Your task to perform on an android device: turn on showing notifications on the lock screen Image 0: 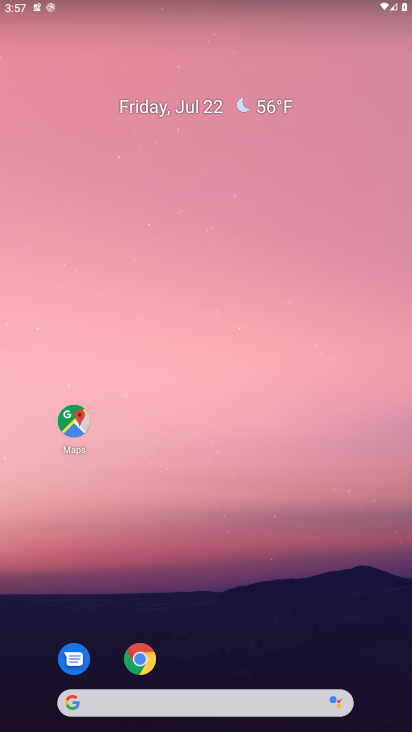
Step 0: drag from (222, 694) to (315, 154)
Your task to perform on an android device: turn on showing notifications on the lock screen Image 1: 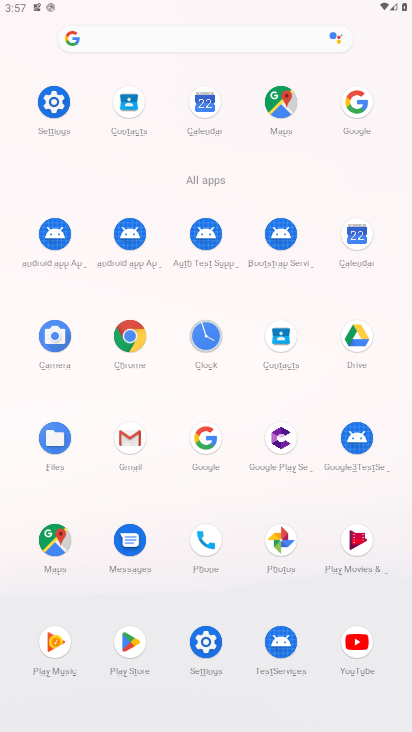
Step 1: click (59, 94)
Your task to perform on an android device: turn on showing notifications on the lock screen Image 2: 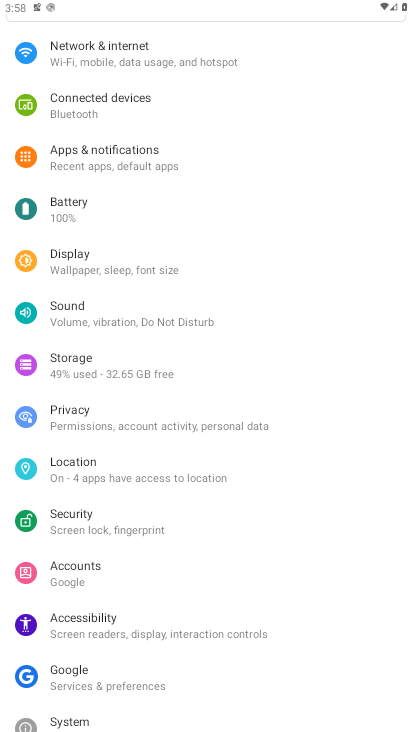
Step 2: click (83, 158)
Your task to perform on an android device: turn on showing notifications on the lock screen Image 3: 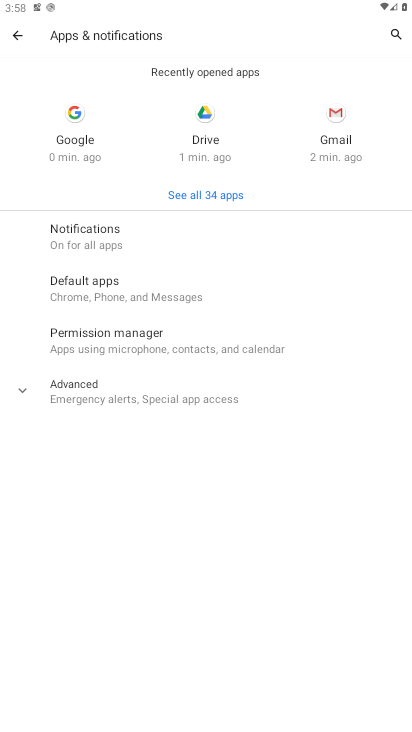
Step 3: click (91, 394)
Your task to perform on an android device: turn on showing notifications on the lock screen Image 4: 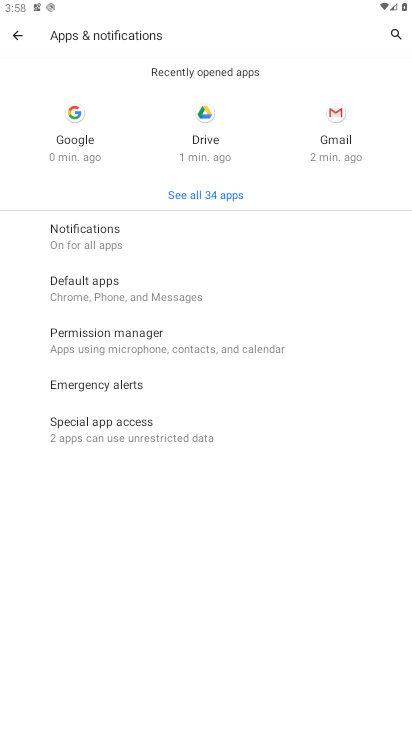
Step 4: click (98, 227)
Your task to perform on an android device: turn on showing notifications on the lock screen Image 5: 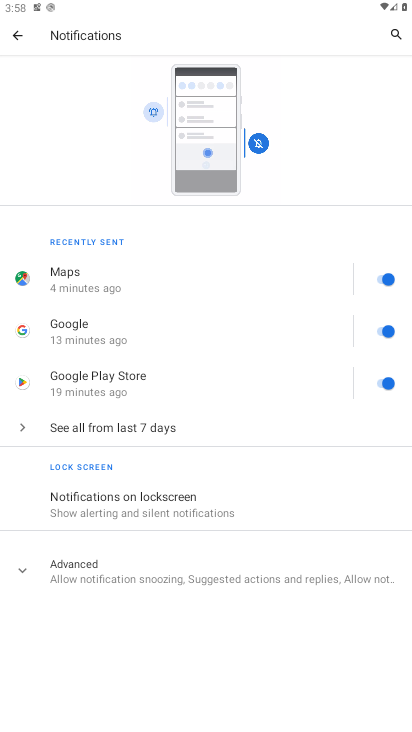
Step 5: click (104, 498)
Your task to perform on an android device: turn on showing notifications on the lock screen Image 6: 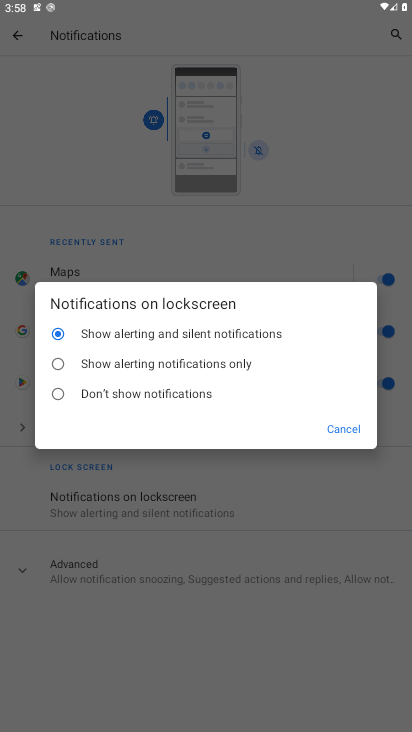
Step 6: click (366, 423)
Your task to perform on an android device: turn on showing notifications on the lock screen Image 7: 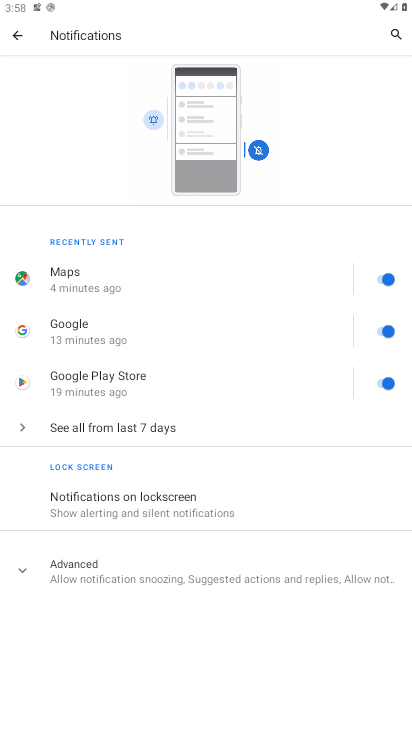
Step 7: task complete